Your task to perform on an android device: add a label to a message in the gmail app Image 0: 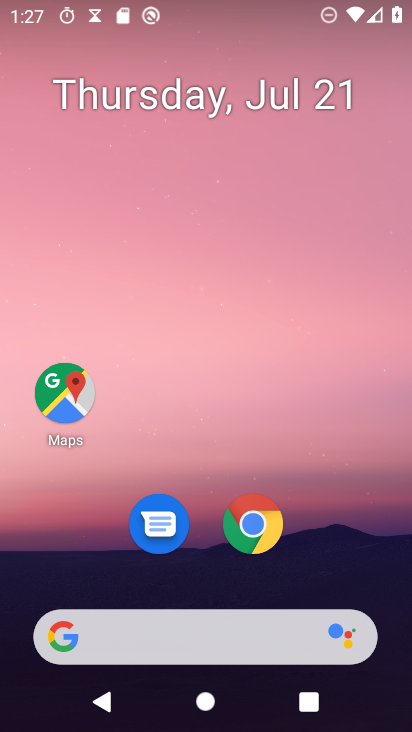
Step 0: drag from (178, 626) to (243, 239)
Your task to perform on an android device: add a label to a message in the gmail app Image 1: 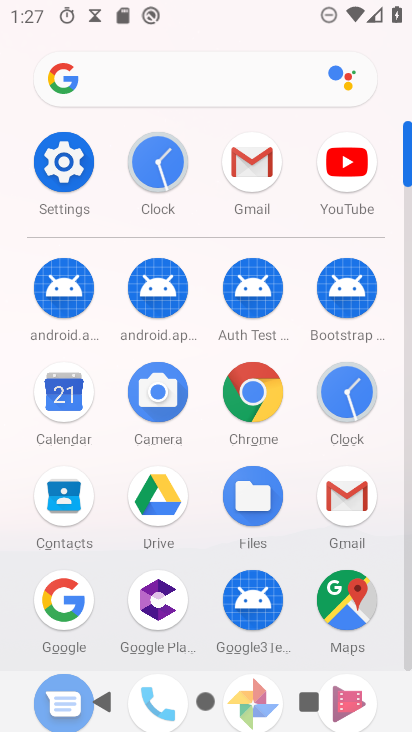
Step 1: click (243, 186)
Your task to perform on an android device: add a label to a message in the gmail app Image 2: 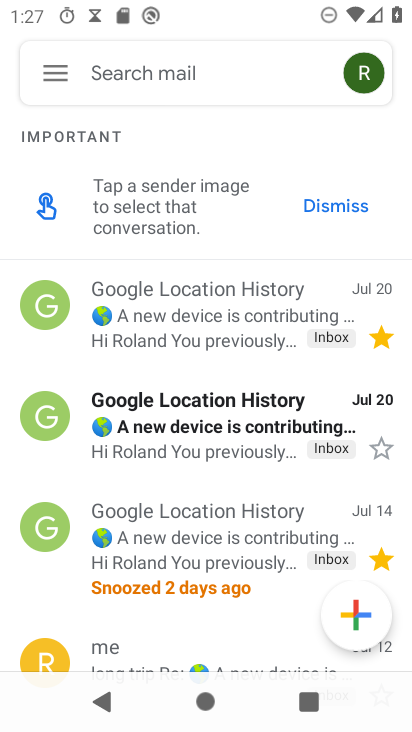
Step 2: click (215, 309)
Your task to perform on an android device: add a label to a message in the gmail app Image 3: 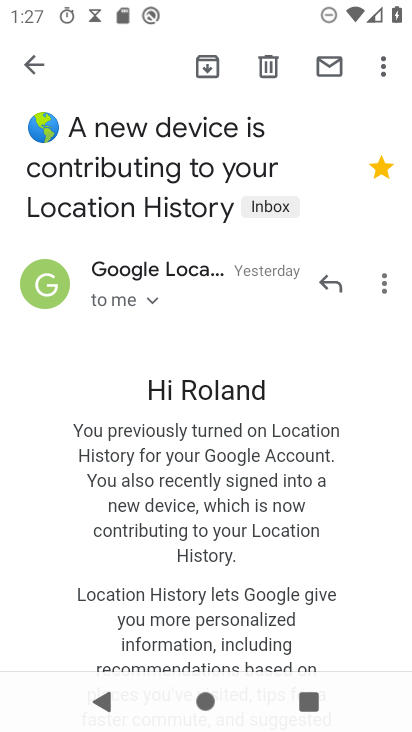
Step 3: click (271, 203)
Your task to perform on an android device: add a label to a message in the gmail app Image 4: 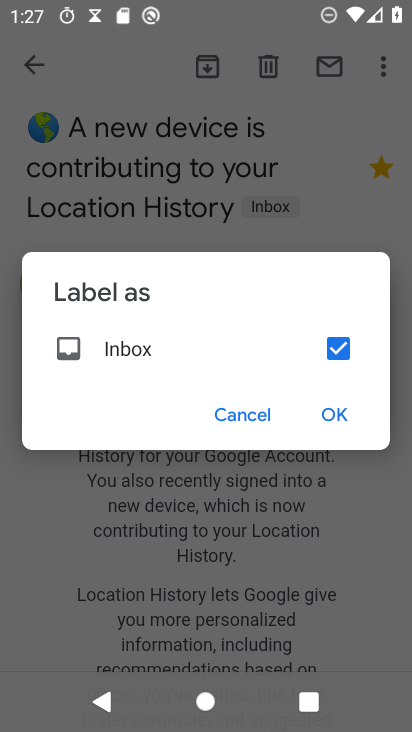
Step 4: task complete